Your task to perform on an android device: toggle airplane mode Image 0: 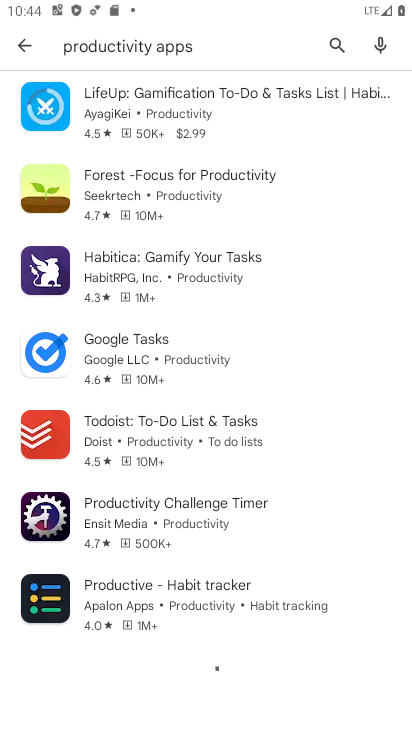
Step 0: press home button
Your task to perform on an android device: toggle airplane mode Image 1: 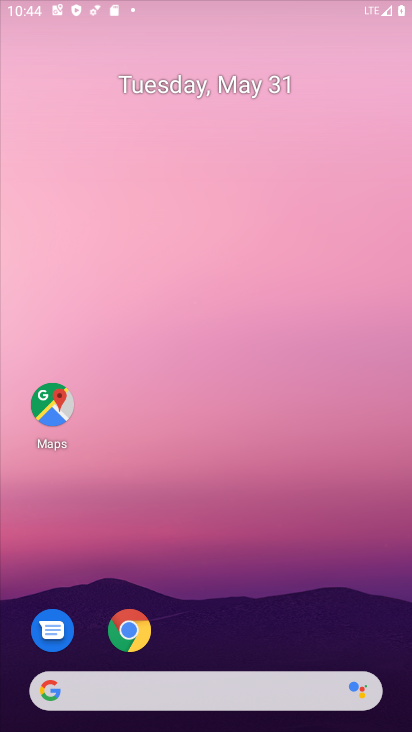
Step 1: drag from (260, 614) to (284, 292)
Your task to perform on an android device: toggle airplane mode Image 2: 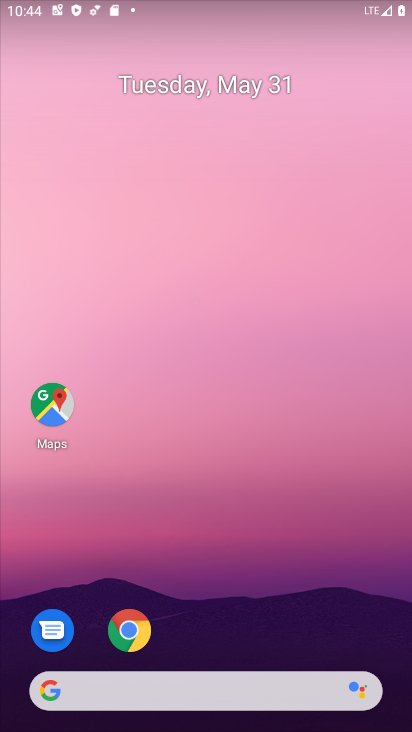
Step 2: drag from (197, 660) to (221, 107)
Your task to perform on an android device: toggle airplane mode Image 3: 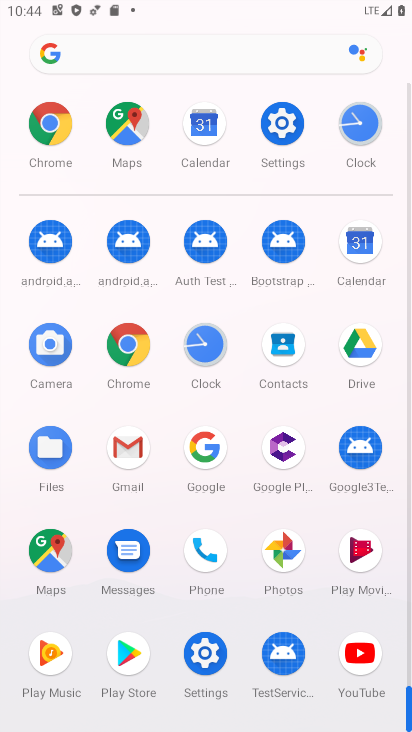
Step 3: click (284, 167)
Your task to perform on an android device: toggle airplane mode Image 4: 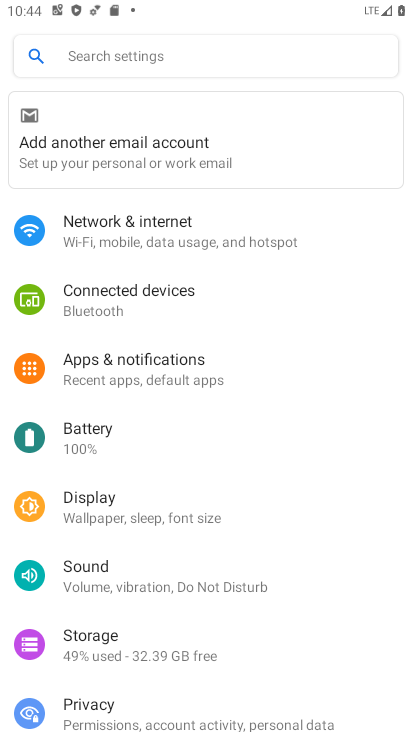
Step 4: click (215, 247)
Your task to perform on an android device: toggle airplane mode Image 5: 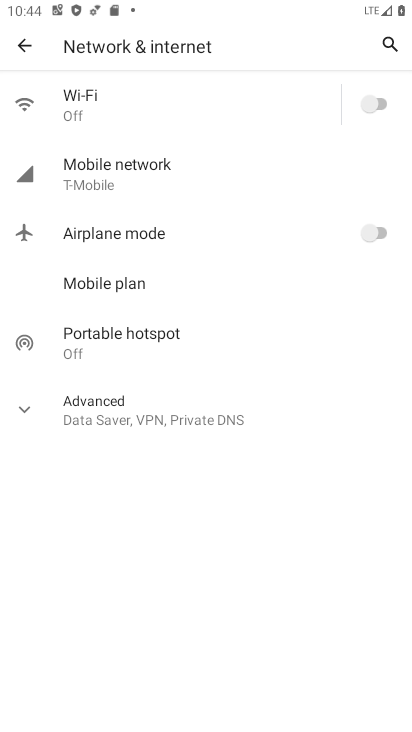
Step 5: click (220, 241)
Your task to perform on an android device: toggle airplane mode Image 6: 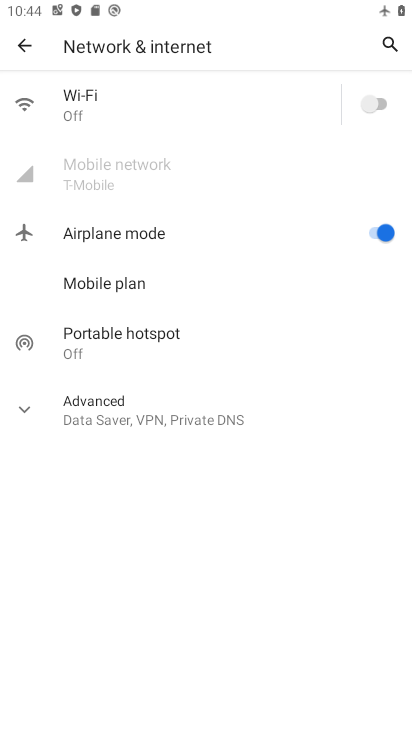
Step 6: task complete